Your task to perform on an android device: Open Chrome and go to settings Image 0: 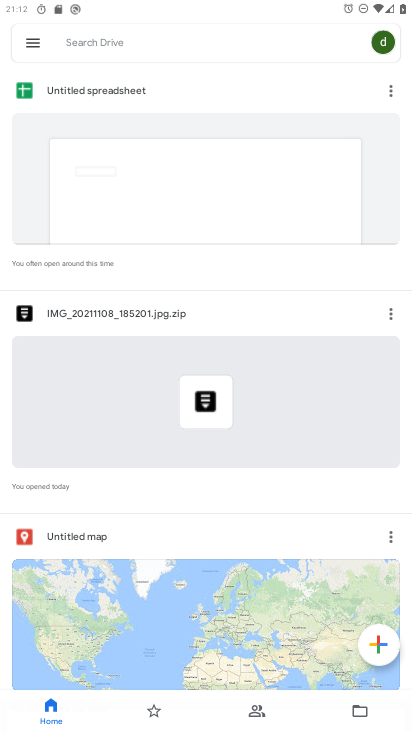
Step 0: drag from (275, 551) to (314, 227)
Your task to perform on an android device: Open Chrome and go to settings Image 1: 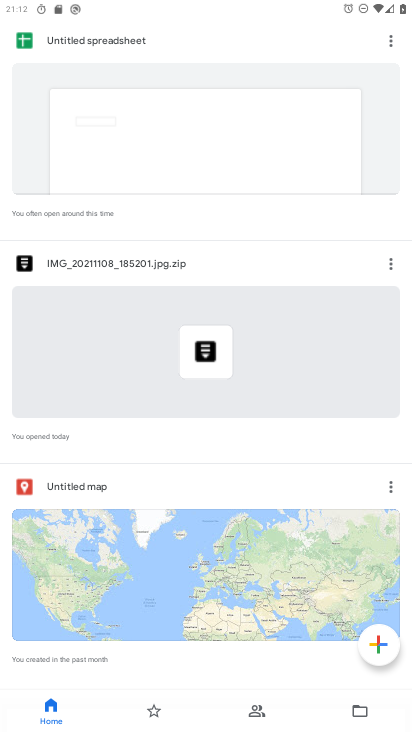
Step 1: drag from (274, 212) to (299, 726)
Your task to perform on an android device: Open Chrome and go to settings Image 2: 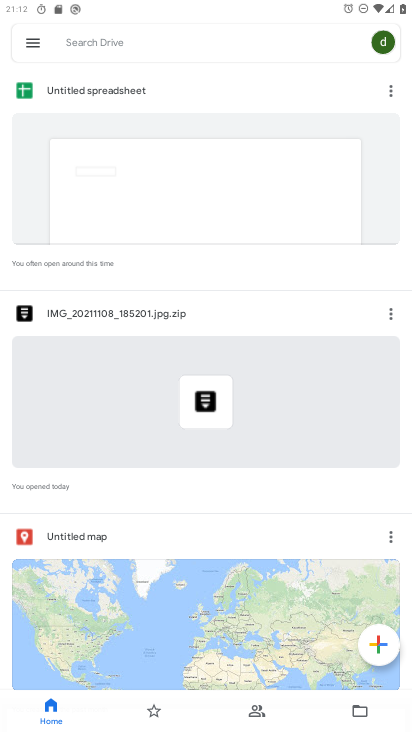
Step 2: press home button
Your task to perform on an android device: Open Chrome and go to settings Image 3: 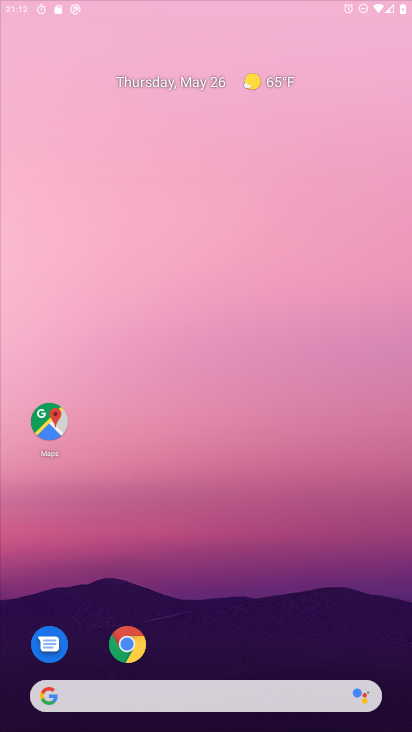
Step 3: drag from (236, 637) to (286, 261)
Your task to perform on an android device: Open Chrome and go to settings Image 4: 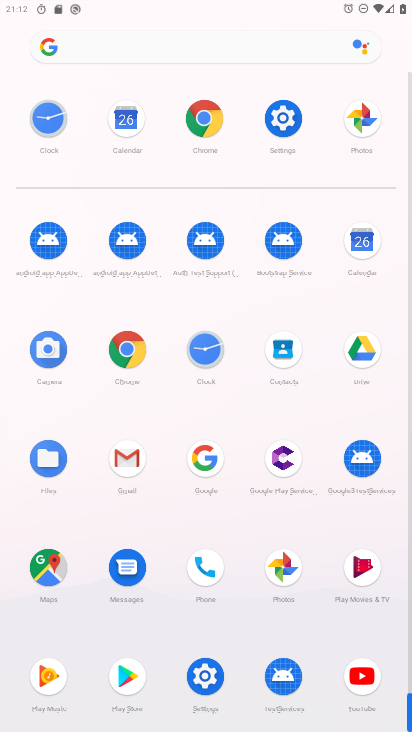
Step 4: click (193, 114)
Your task to perform on an android device: Open Chrome and go to settings Image 5: 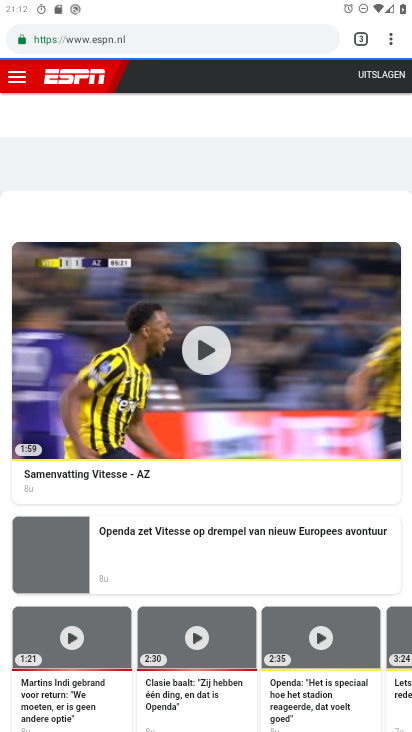
Step 5: click (391, 29)
Your task to perform on an android device: Open Chrome and go to settings Image 6: 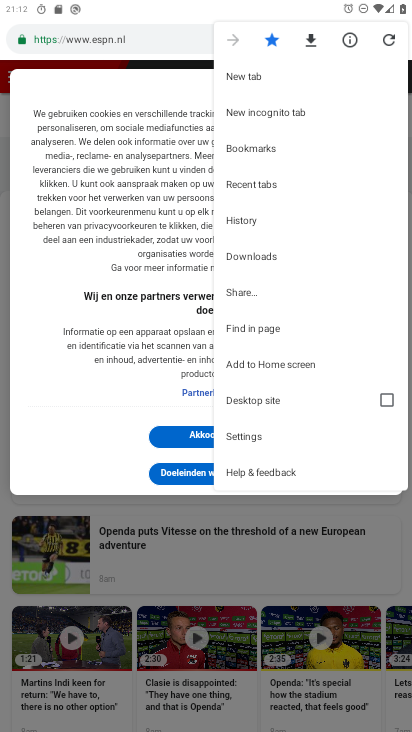
Step 6: click (255, 433)
Your task to perform on an android device: Open Chrome and go to settings Image 7: 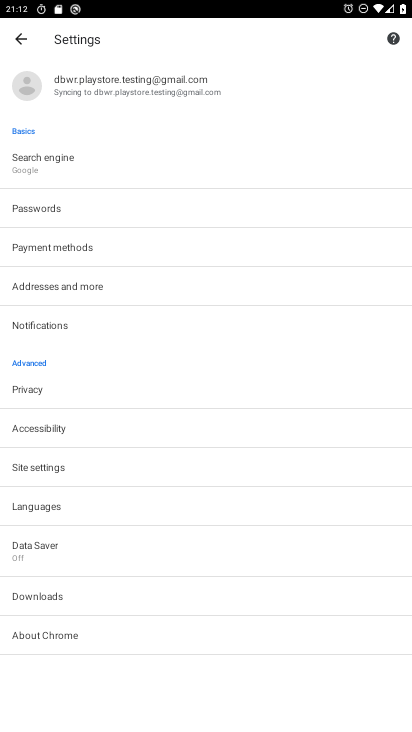
Step 7: task complete